Your task to perform on an android device: Go to privacy settings Image 0: 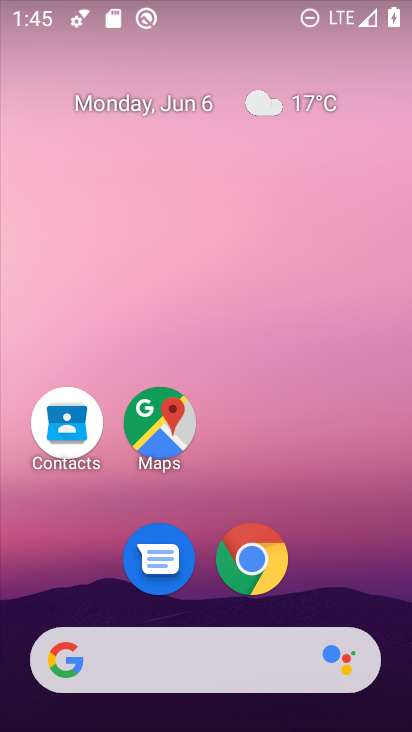
Step 0: drag from (212, 668) to (265, 201)
Your task to perform on an android device: Go to privacy settings Image 1: 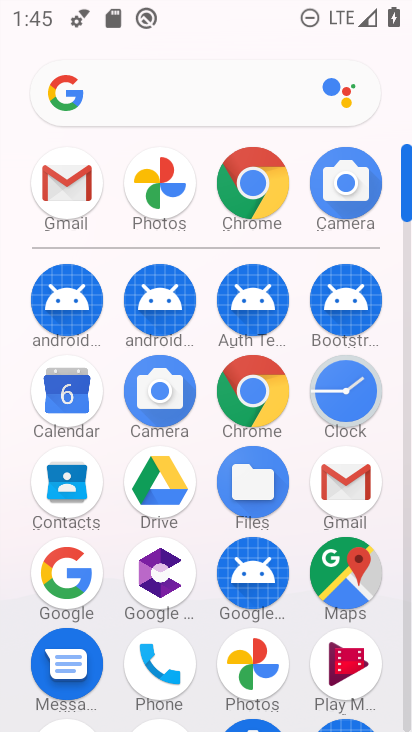
Step 1: drag from (189, 563) to (250, 324)
Your task to perform on an android device: Go to privacy settings Image 2: 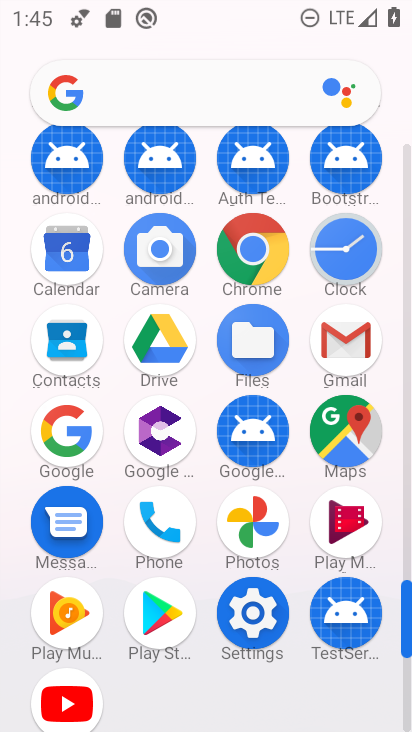
Step 2: click (268, 634)
Your task to perform on an android device: Go to privacy settings Image 3: 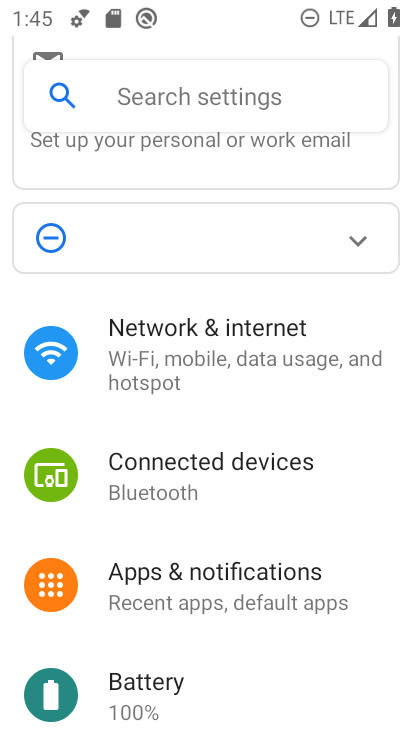
Step 3: drag from (278, 588) to (329, 346)
Your task to perform on an android device: Go to privacy settings Image 4: 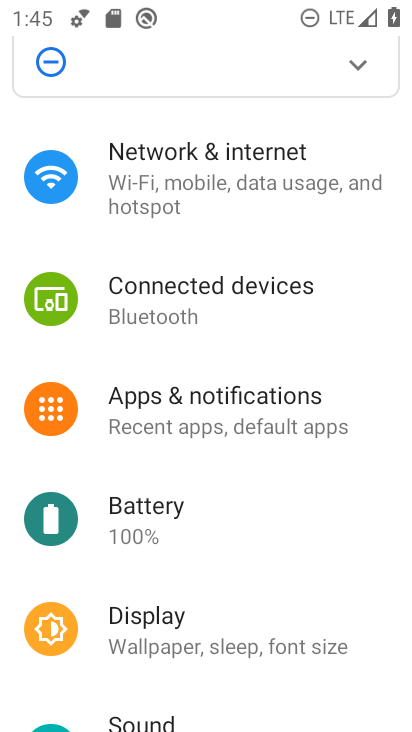
Step 4: drag from (261, 602) to (292, 439)
Your task to perform on an android device: Go to privacy settings Image 5: 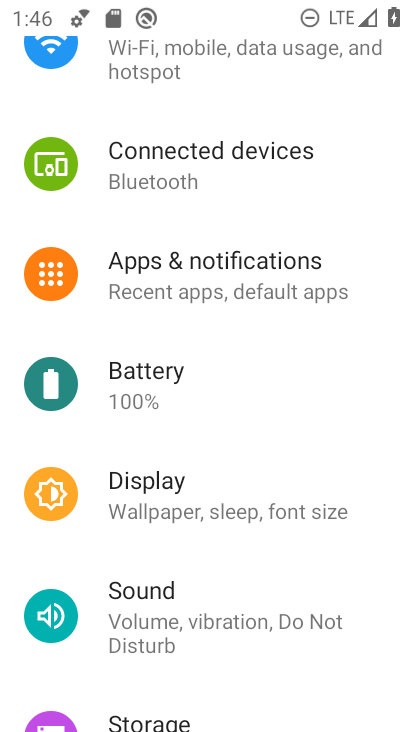
Step 5: drag from (250, 616) to (294, 397)
Your task to perform on an android device: Go to privacy settings Image 6: 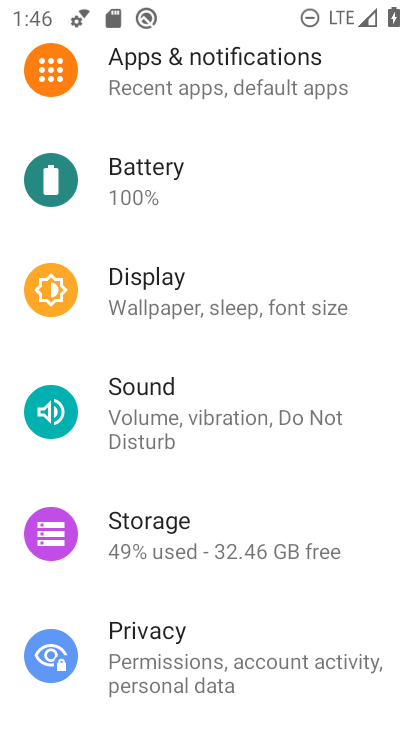
Step 6: drag from (242, 615) to (254, 519)
Your task to perform on an android device: Go to privacy settings Image 7: 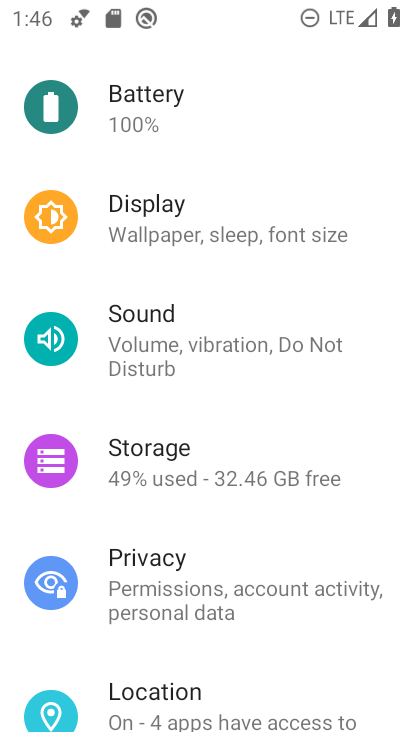
Step 7: click (251, 599)
Your task to perform on an android device: Go to privacy settings Image 8: 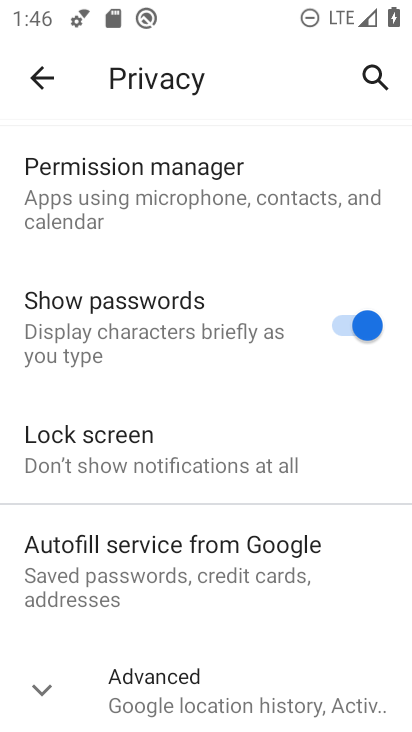
Step 8: task complete